Your task to perform on an android device: turn on the 12-hour format for clock Image 0: 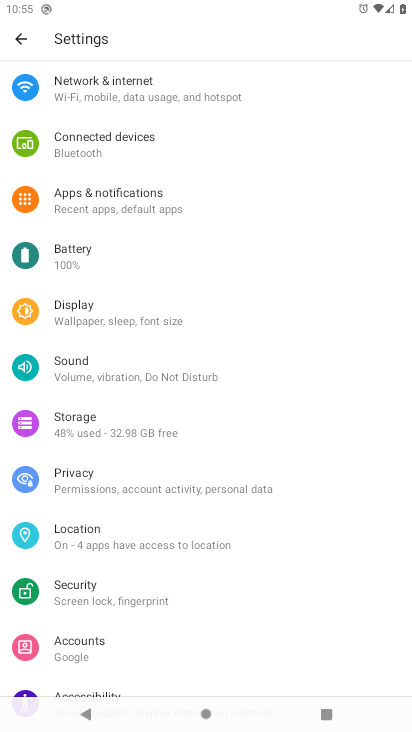
Step 0: press home button
Your task to perform on an android device: turn on the 12-hour format for clock Image 1: 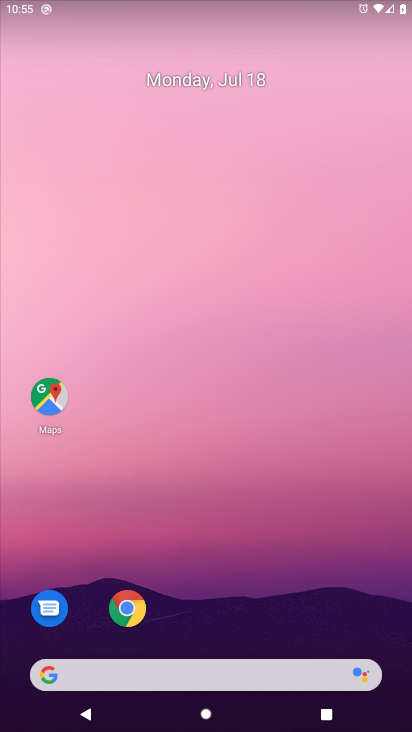
Step 1: task complete